Your task to perform on an android device: Open the phone app and click the voicemail tab. Image 0: 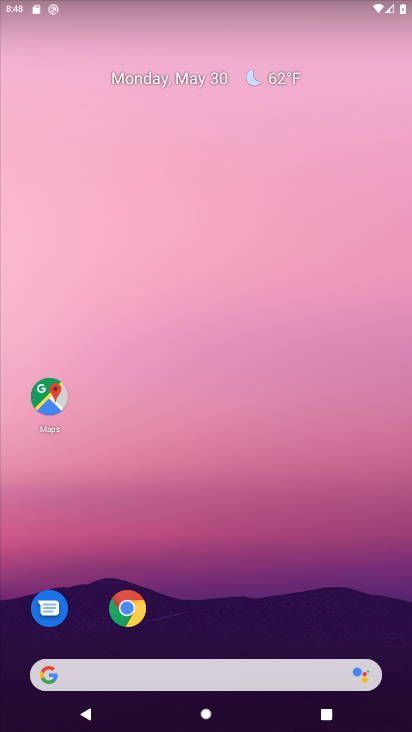
Step 0: drag from (295, 633) to (329, 40)
Your task to perform on an android device: Open the phone app and click the voicemail tab. Image 1: 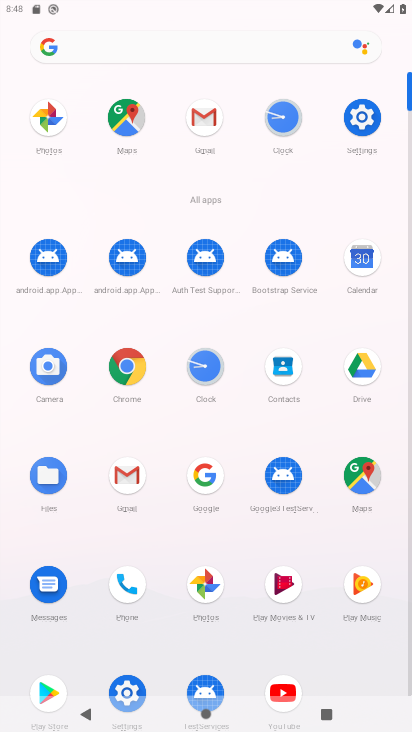
Step 1: click (123, 582)
Your task to perform on an android device: Open the phone app and click the voicemail tab. Image 2: 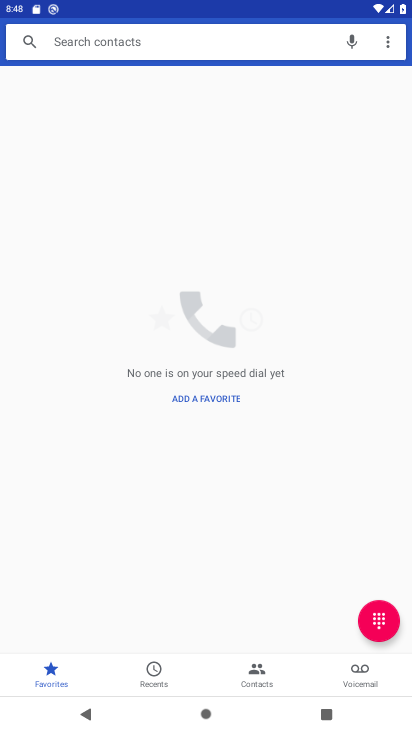
Step 2: click (354, 672)
Your task to perform on an android device: Open the phone app and click the voicemail tab. Image 3: 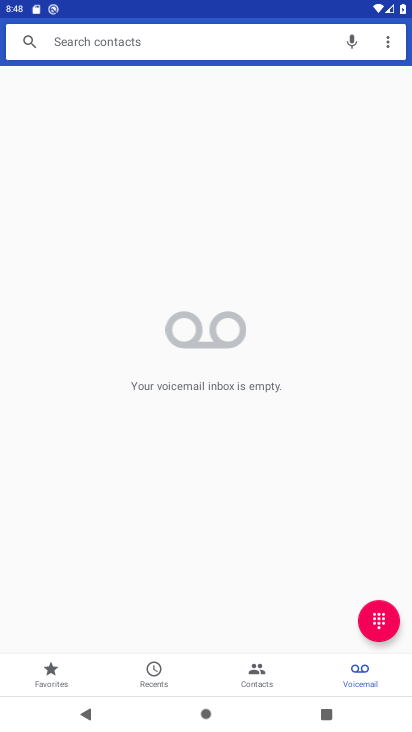
Step 3: task complete